Your task to perform on an android device: turn on translation in the chrome app Image 0: 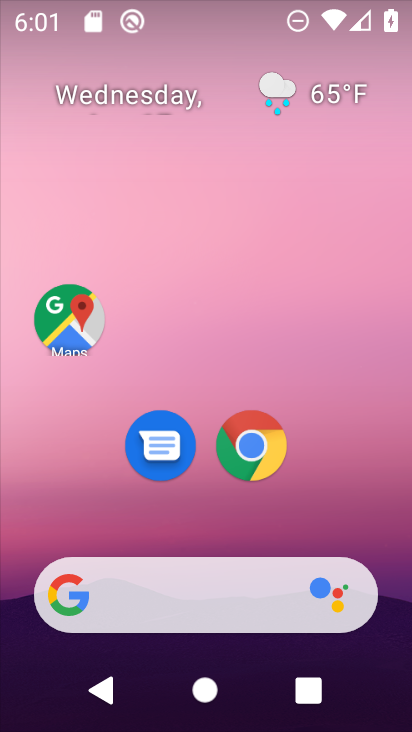
Step 0: click (230, 447)
Your task to perform on an android device: turn on translation in the chrome app Image 1: 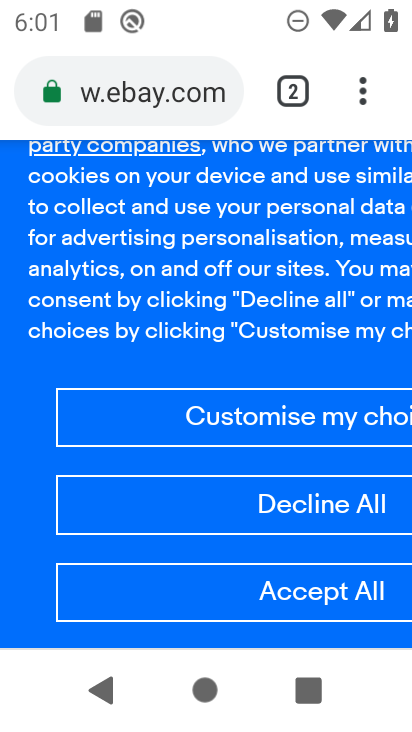
Step 1: click (358, 87)
Your task to perform on an android device: turn on translation in the chrome app Image 2: 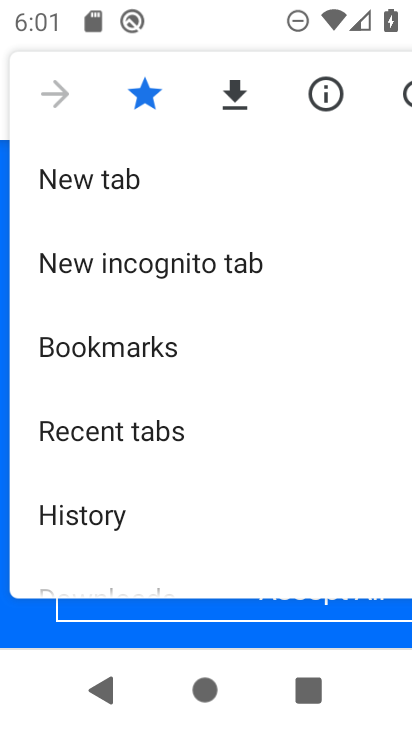
Step 2: drag from (150, 517) to (178, 131)
Your task to perform on an android device: turn on translation in the chrome app Image 3: 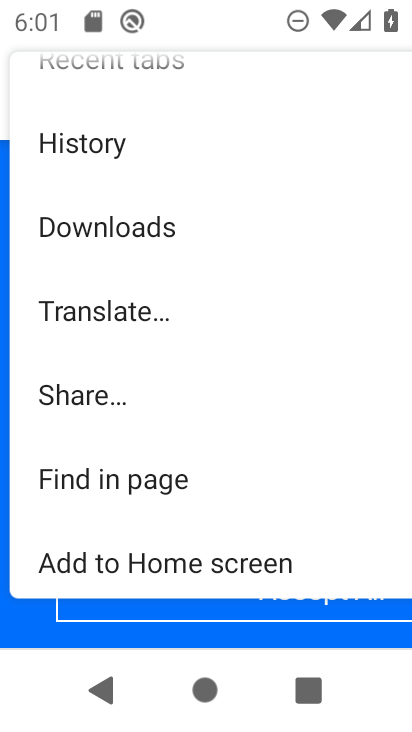
Step 3: drag from (127, 527) to (146, 141)
Your task to perform on an android device: turn on translation in the chrome app Image 4: 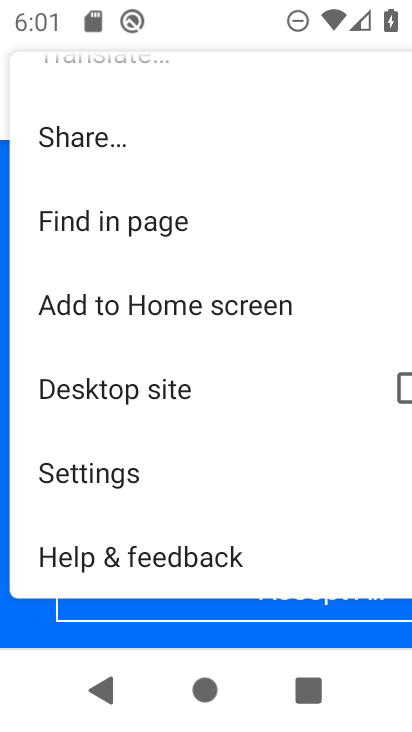
Step 4: click (124, 477)
Your task to perform on an android device: turn on translation in the chrome app Image 5: 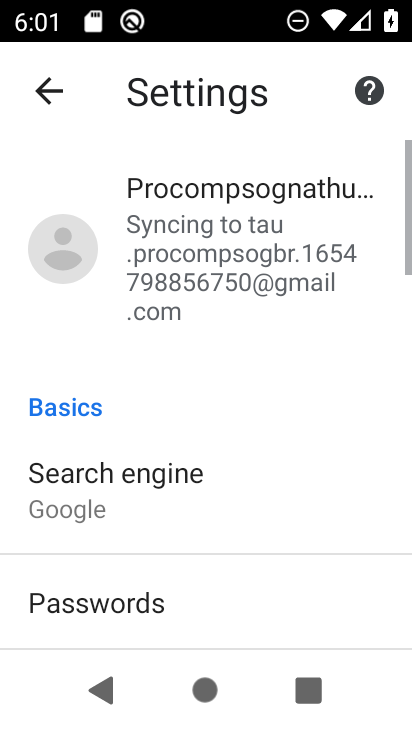
Step 5: drag from (154, 638) to (217, 140)
Your task to perform on an android device: turn on translation in the chrome app Image 6: 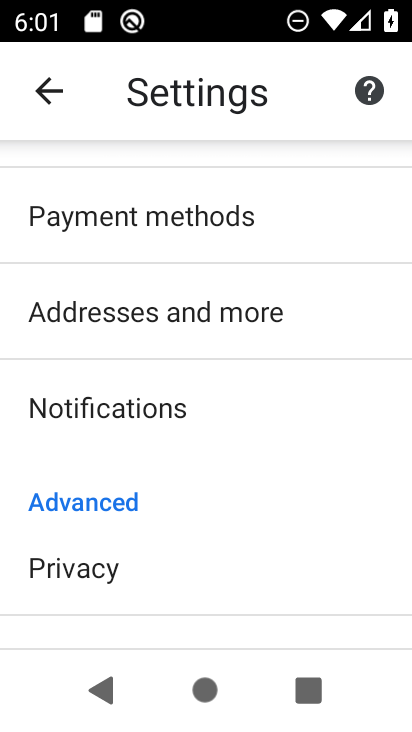
Step 6: drag from (172, 555) to (175, 131)
Your task to perform on an android device: turn on translation in the chrome app Image 7: 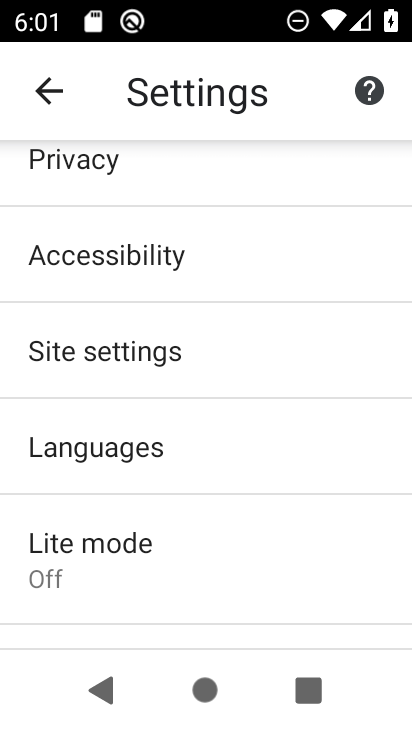
Step 7: click (112, 449)
Your task to perform on an android device: turn on translation in the chrome app Image 8: 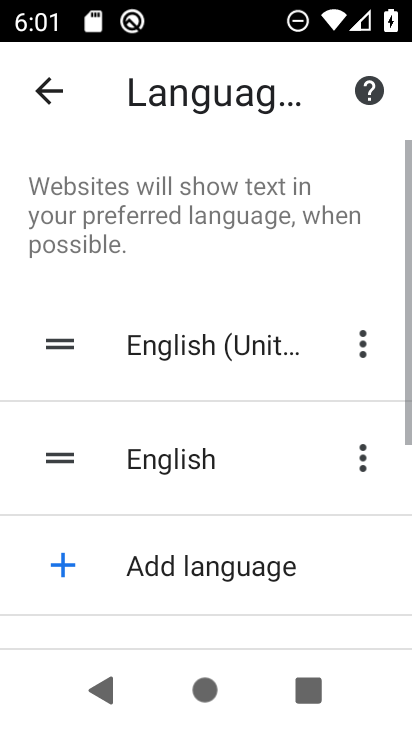
Step 8: task complete